Your task to perform on an android device: change notifications settings Image 0: 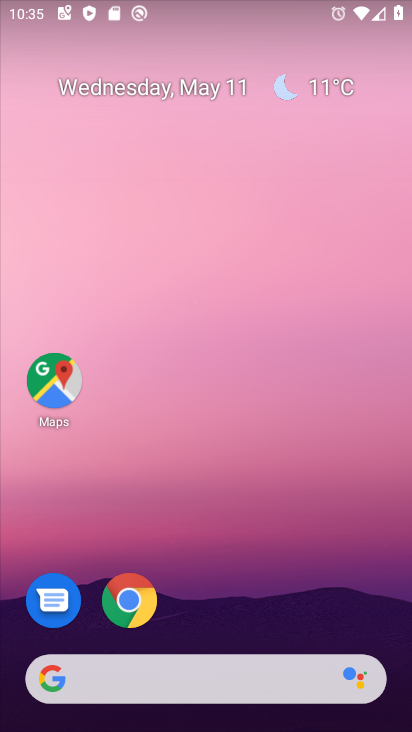
Step 0: drag from (222, 648) to (203, 17)
Your task to perform on an android device: change notifications settings Image 1: 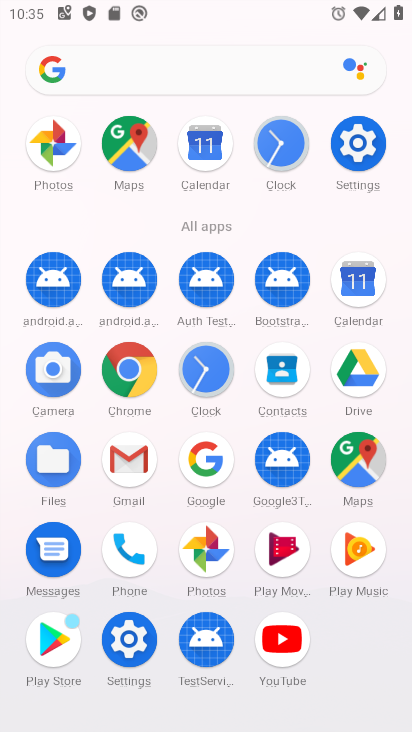
Step 1: click (347, 171)
Your task to perform on an android device: change notifications settings Image 2: 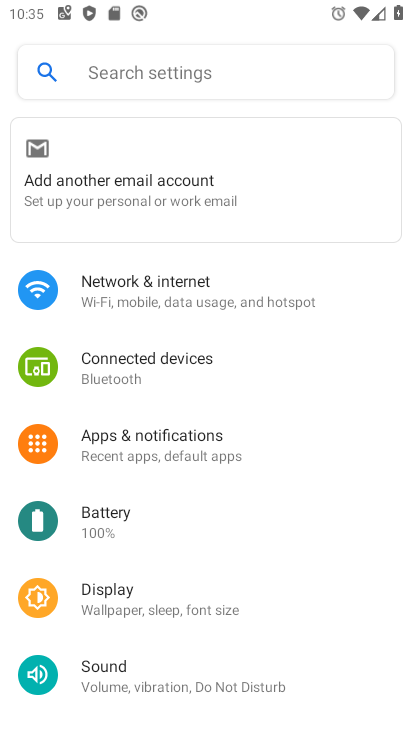
Step 2: click (146, 445)
Your task to perform on an android device: change notifications settings Image 3: 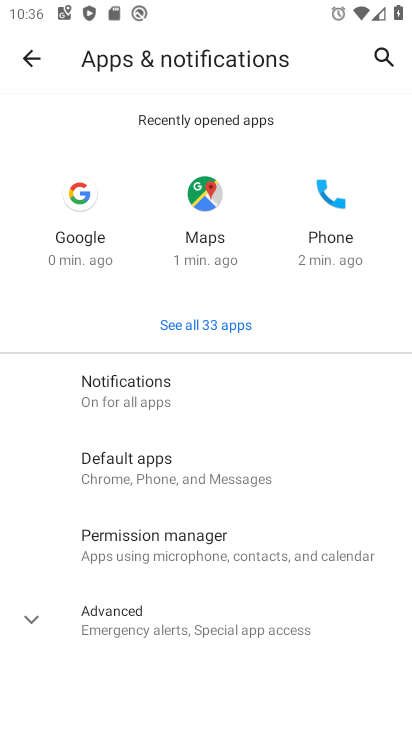
Step 3: click (130, 387)
Your task to perform on an android device: change notifications settings Image 4: 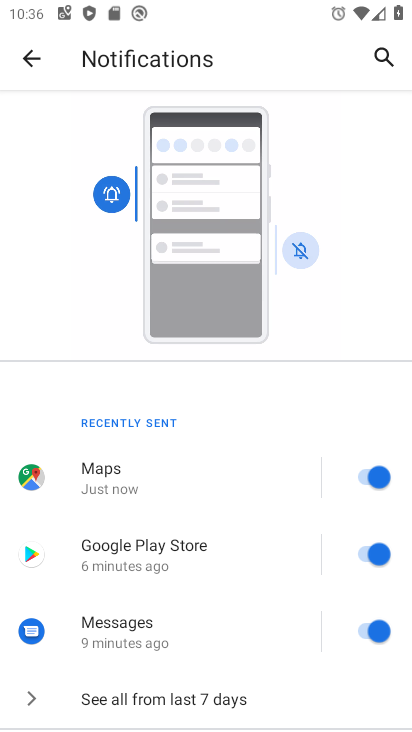
Step 4: click (206, 692)
Your task to perform on an android device: change notifications settings Image 5: 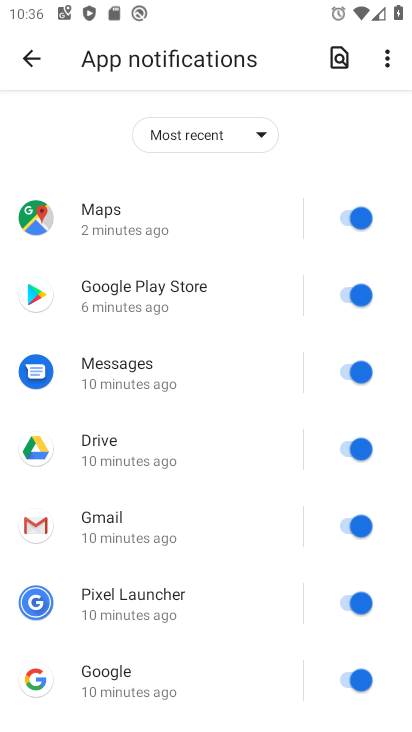
Step 5: click (236, 124)
Your task to perform on an android device: change notifications settings Image 6: 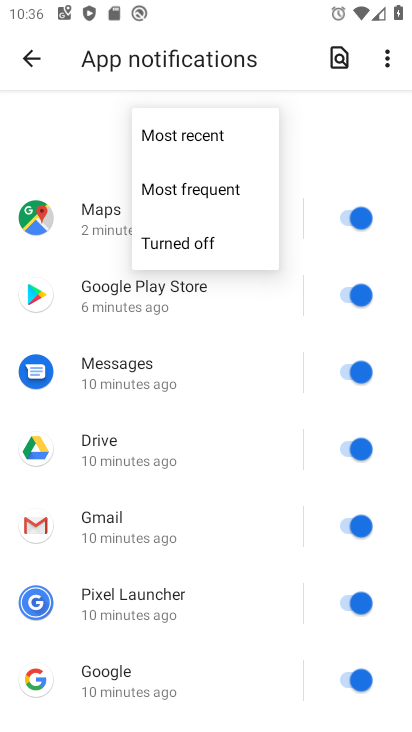
Step 6: click (196, 251)
Your task to perform on an android device: change notifications settings Image 7: 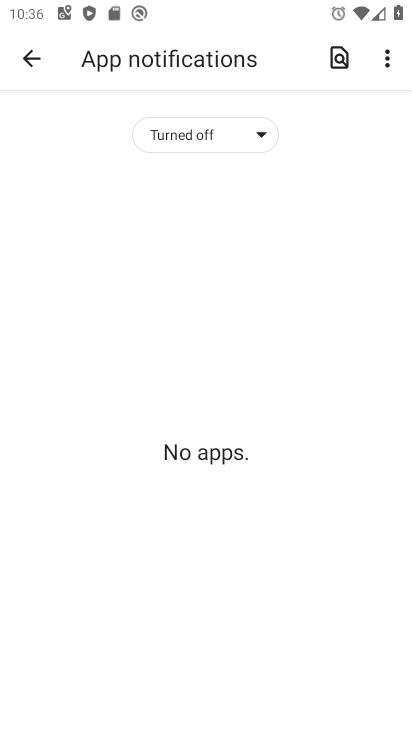
Step 7: task complete